Your task to perform on an android device: check data usage Image 0: 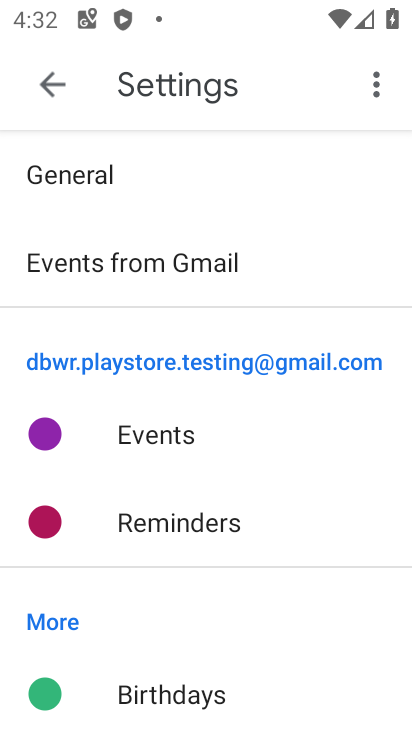
Step 0: press home button
Your task to perform on an android device: check data usage Image 1: 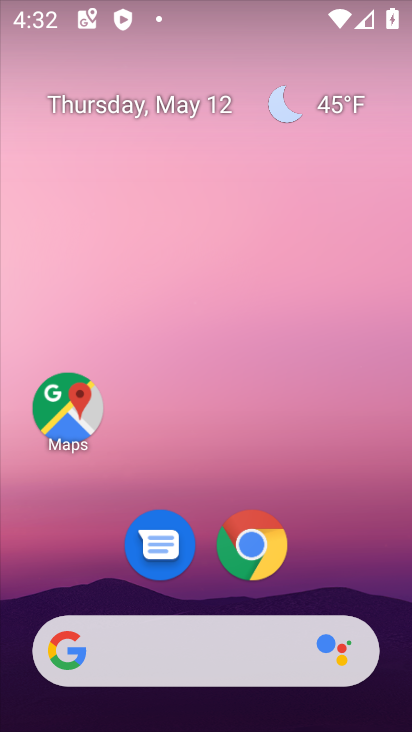
Step 1: drag from (362, 539) to (190, 109)
Your task to perform on an android device: check data usage Image 2: 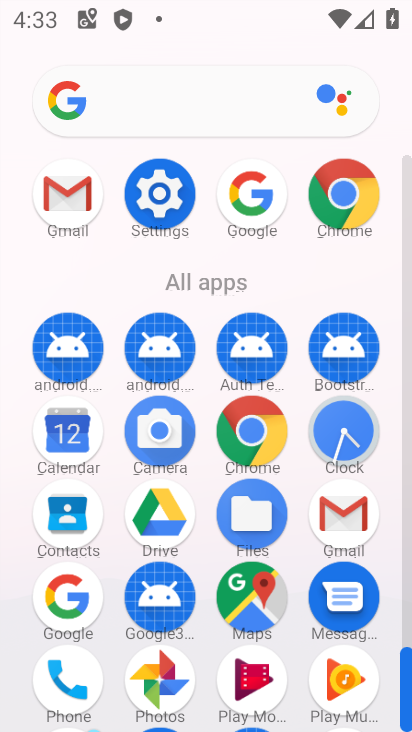
Step 2: click (157, 193)
Your task to perform on an android device: check data usage Image 3: 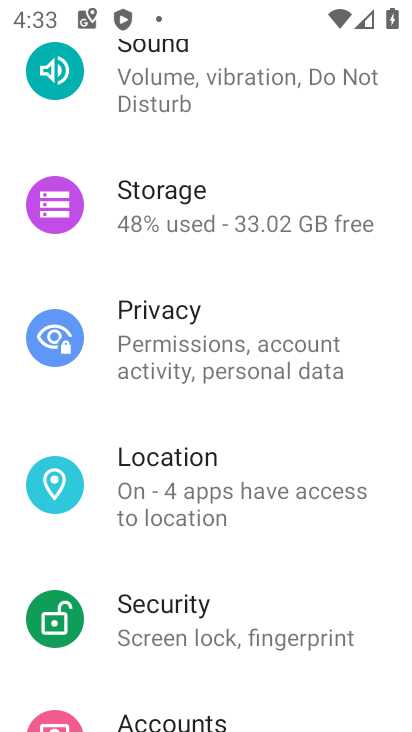
Step 3: drag from (245, 291) to (278, 611)
Your task to perform on an android device: check data usage Image 4: 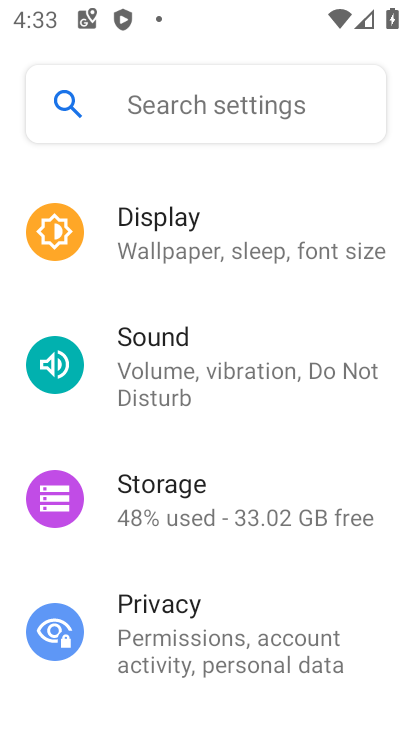
Step 4: drag from (235, 243) to (255, 537)
Your task to perform on an android device: check data usage Image 5: 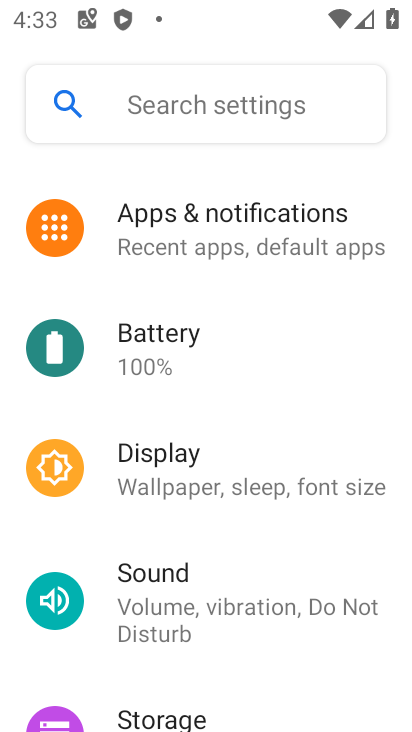
Step 5: drag from (210, 233) to (226, 542)
Your task to perform on an android device: check data usage Image 6: 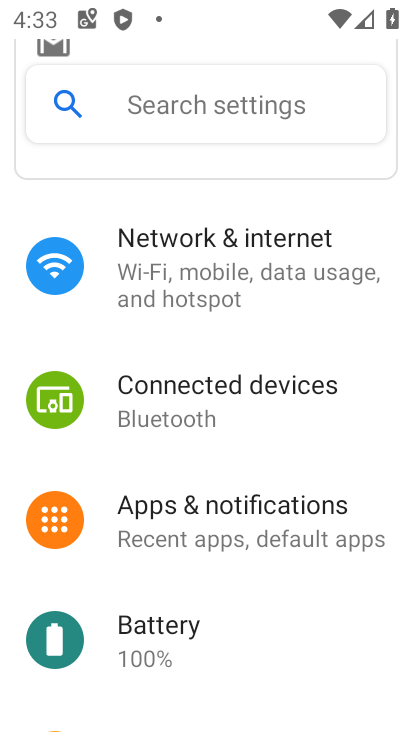
Step 6: drag from (215, 246) to (217, 290)
Your task to perform on an android device: check data usage Image 7: 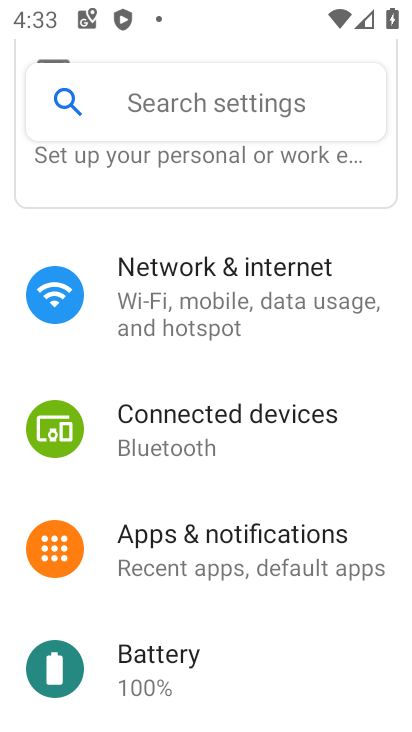
Step 7: click (216, 269)
Your task to perform on an android device: check data usage Image 8: 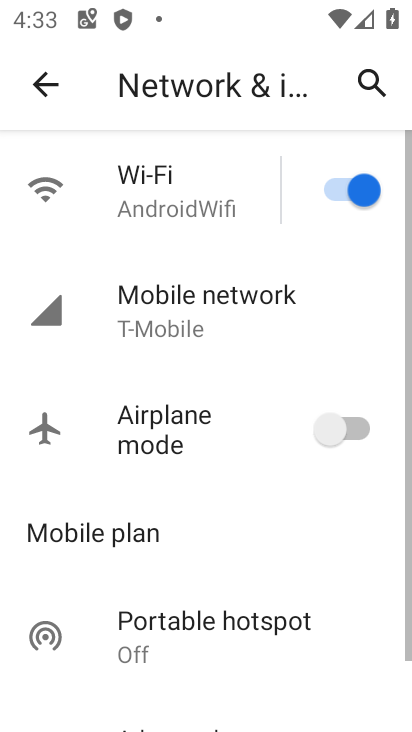
Step 8: click (207, 308)
Your task to perform on an android device: check data usage Image 9: 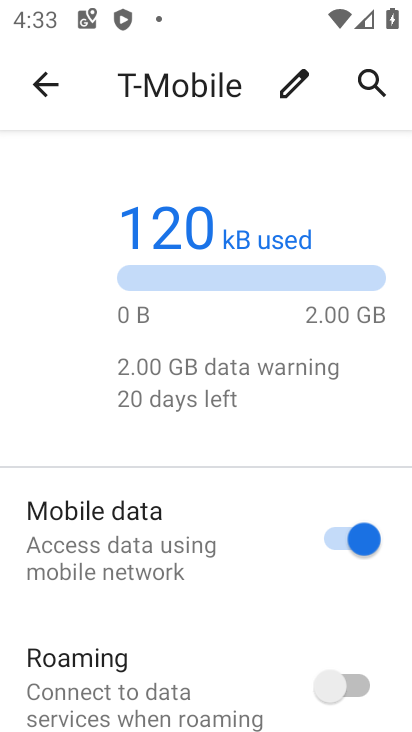
Step 9: task complete